Your task to perform on an android device: open the mobile data screen to see how much data has been used Image 0: 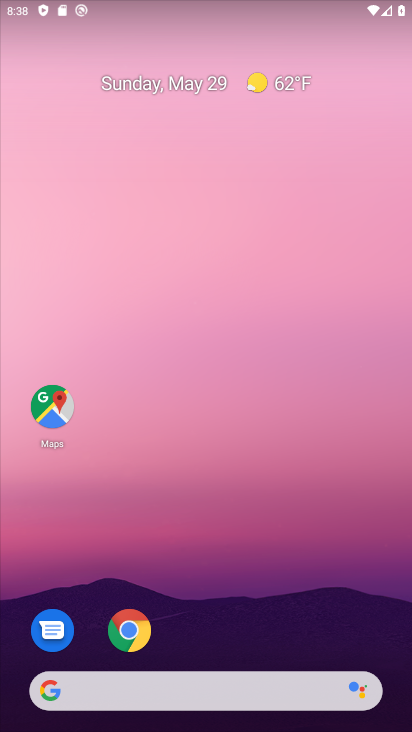
Step 0: drag from (302, 77) to (277, 122)
Your task to perform on an android device: open the mobile data screen to see how much data has been used Image 1: 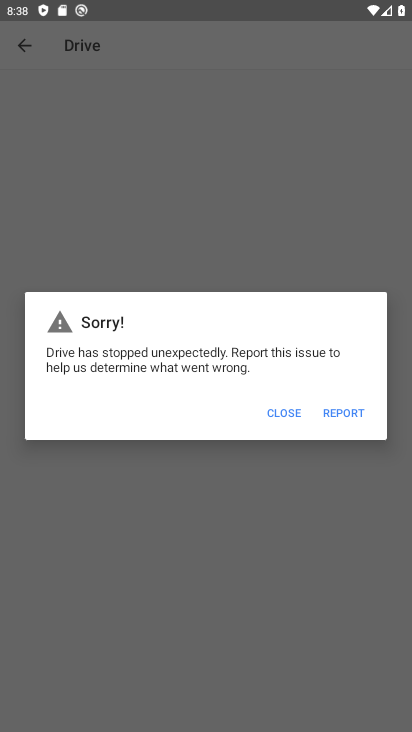
Step 1: press enter
Your task to perform on an android device: open the mobile data screen to see how much data has been used Image 2: 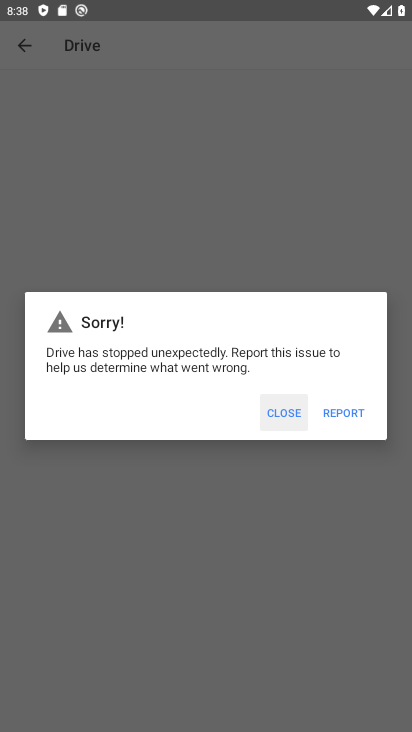
Step 2: press home button
Your task to perform on an android device: open the mobile data screen to see how much data has been used Image 3: 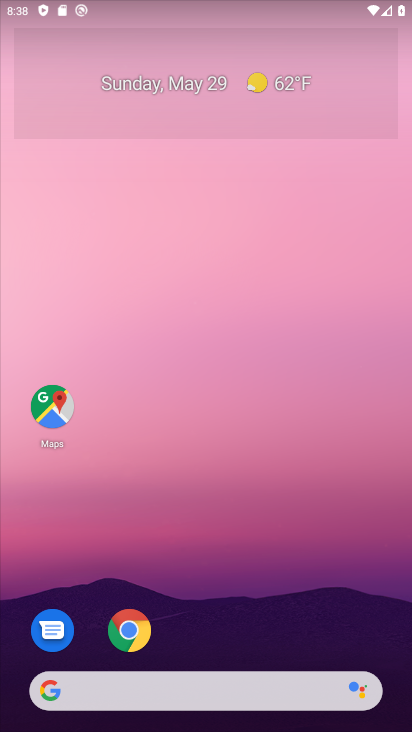
Step 3: drag from (392, 663) to (265, 54)
Your task to perform on an android device: open the mobile data screen to see how much data has been used Image 4: 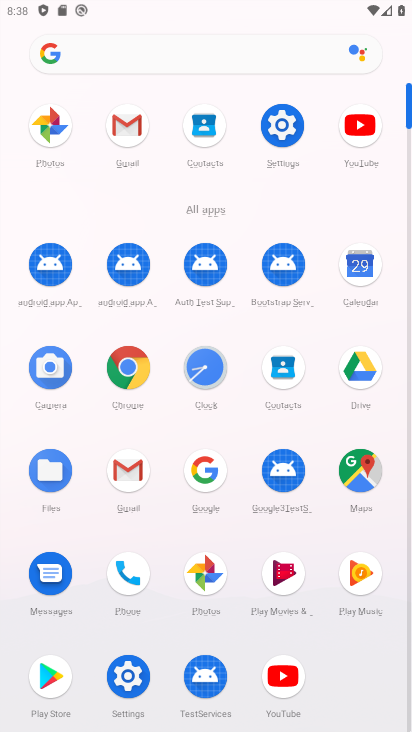
Step 4: click (268, 123)
Your task to perform on an android device: open the mobile data screen to see how much data has been used Image 5: 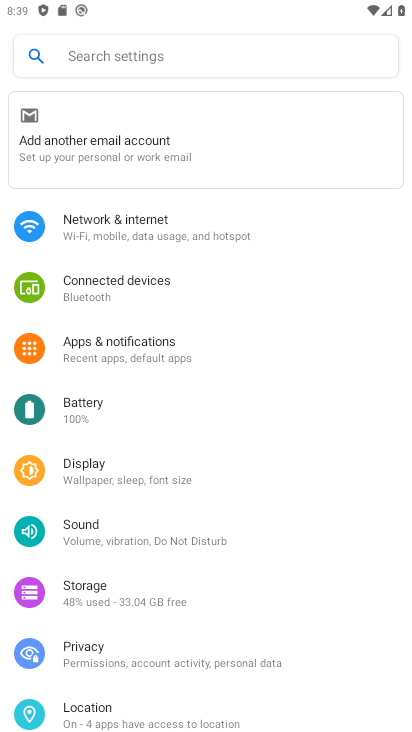
Step 5: click (120, 221)
Your task to perform on an android device: open the mobile data screen to see how much data has been used Image 6: 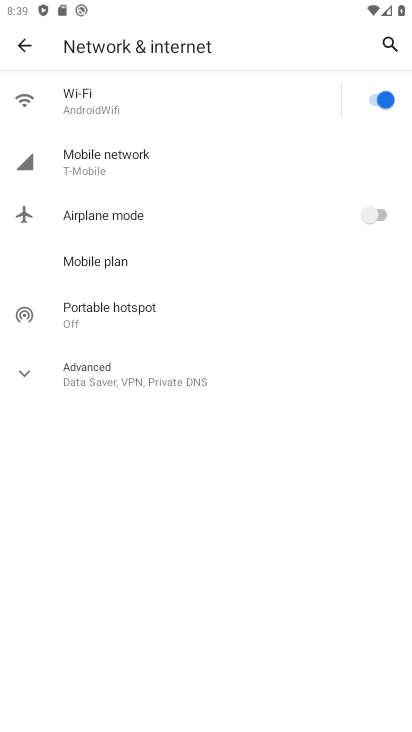
Step 6: click (98, 165)
Your task to perform on an android device: open the mobile data screen to see how much data has been used Image 7: 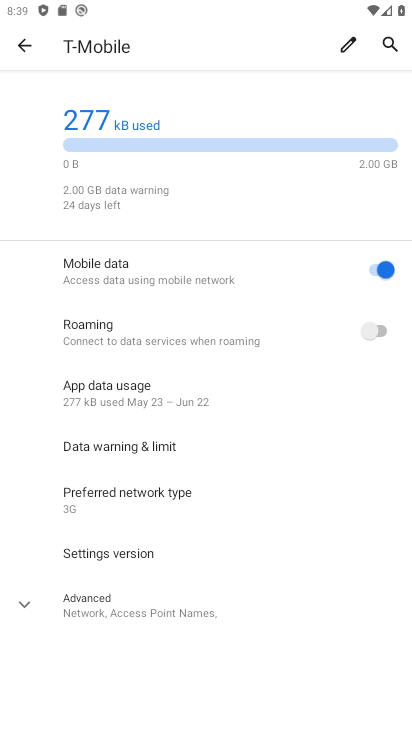
Step 7: task complete